Your task to perform on an android device: Open ESPN.com Image 0: 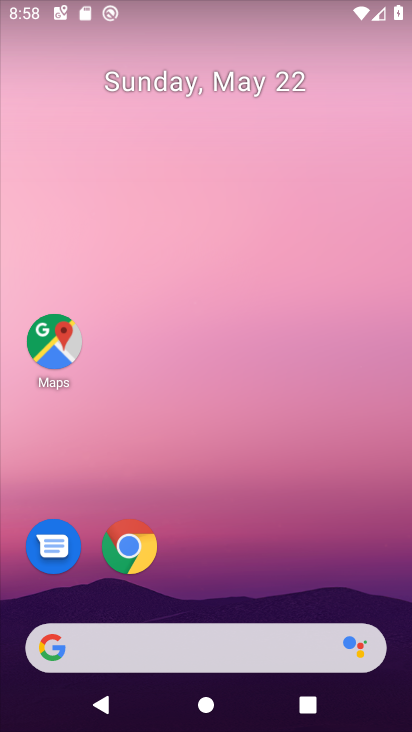
Step 0: drag from (333, 579) to (330, 167)
Your task to perform on an android device: Open ESPN.com Image 1: 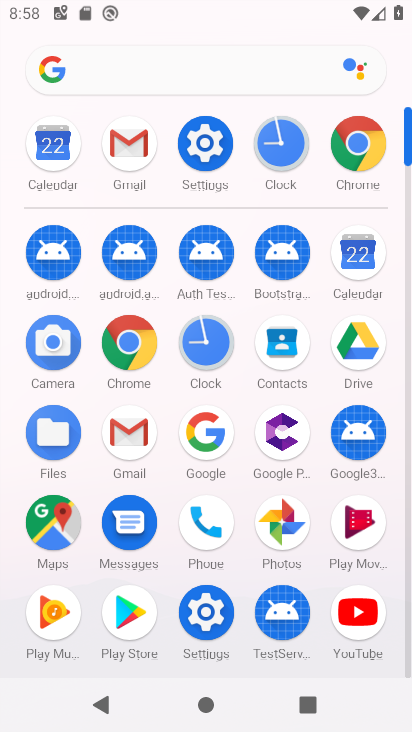
Step 1: click (137, 343)
Your task to perform on an android device: Open ESPN.com Image 2: 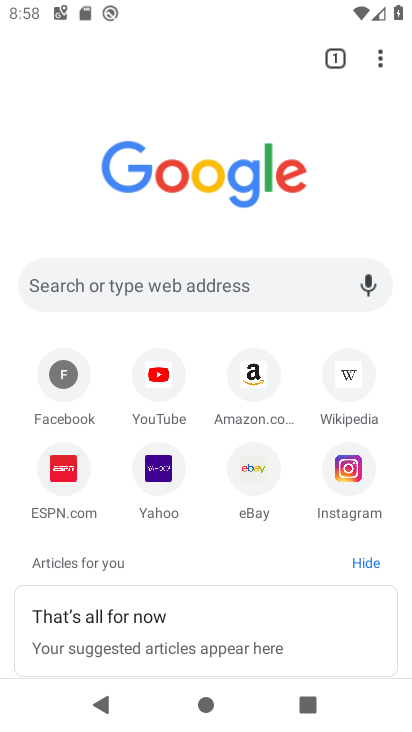
Step 2: click (69, 485)
Your task to perform on an android device: Open ESPN.com Image 3: 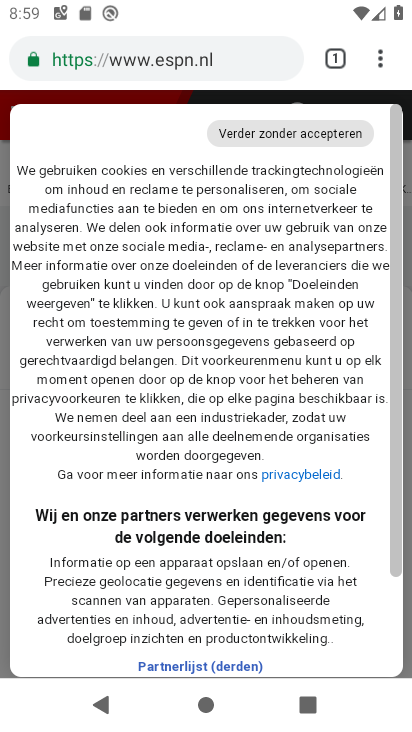
Step 3: task complete